Your task to perform on an android device: turn off notifications settings in the gmail app Image 0: 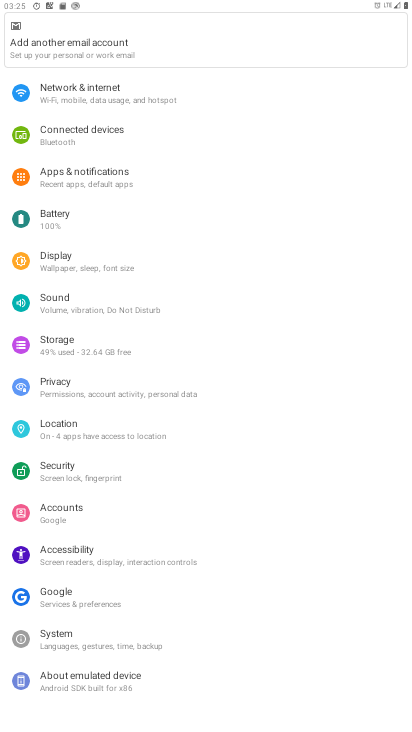
Step 0: press home button
Your task to perform on an android device: turn off notifications settings in the gmail app Image 1: 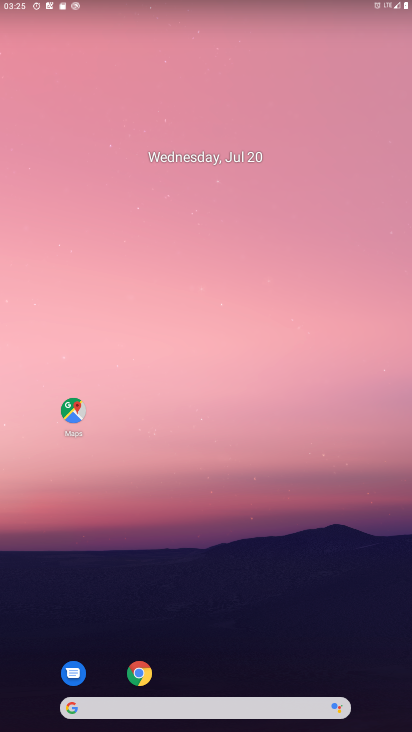
Step 1: drag from (192, 641) to (215, 20)
Your task to perform on an android device: turn off notifications settings in the gmail app Image 2: 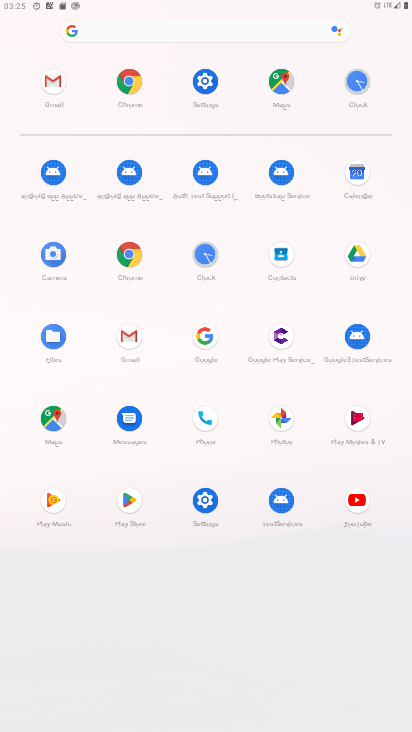
Step 2: click (133, 355)
Your task to perform on an android device: turn off notifications settings in the gmail app Image 3: 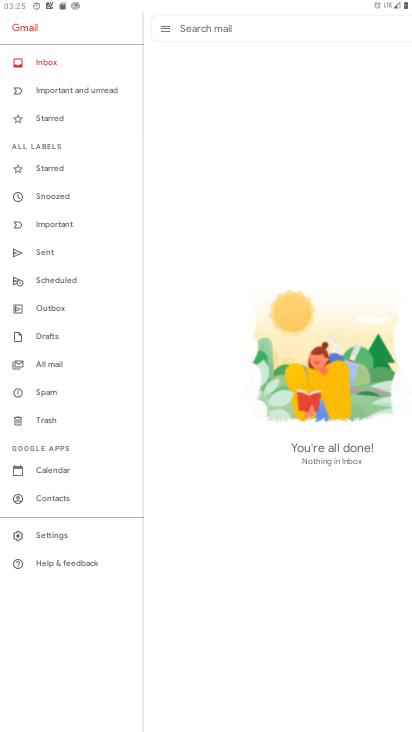
Step 3: click (54, 536)
Your task to perform on an android device: turn off notifications settings in the gmail app Image 4: 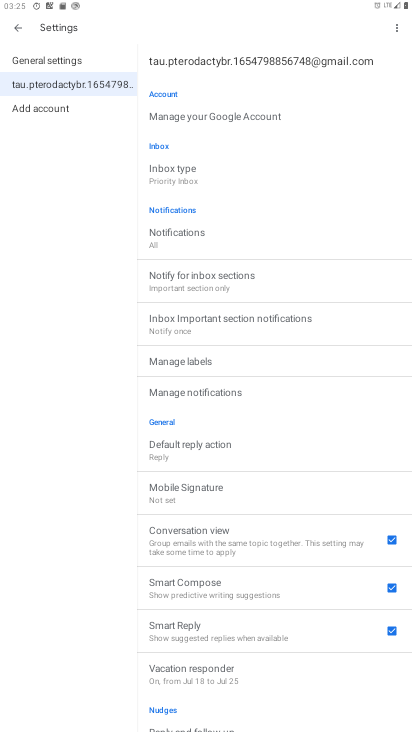
Step 4: click (57, 56)
Your task to perform on an android device: turn off notifications settings in the gmail app Image 5: 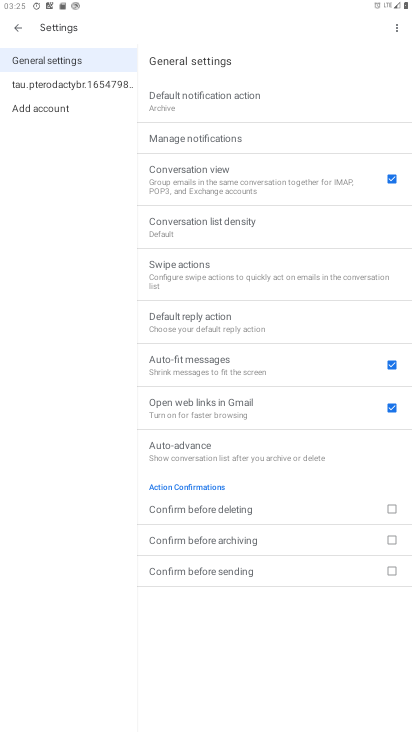
Step 5: click (222, 140)
Your task to perform on an android device: turn off notifications settings in the gmail app Image 6: 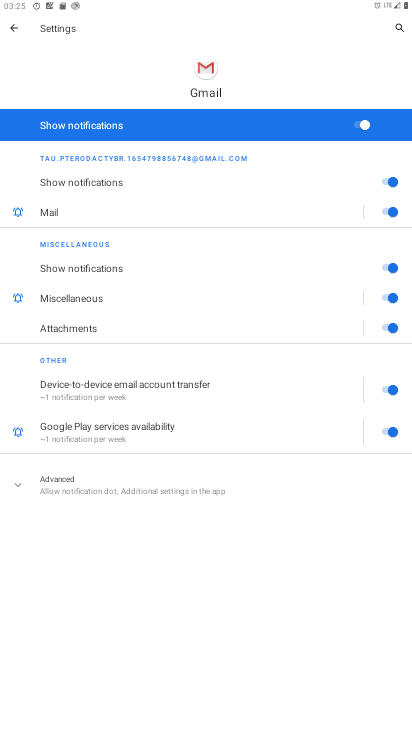
Step 6: click (334, 124)
Your task to perform on an android device: turn off notifications settings in the gmail app Image 7: 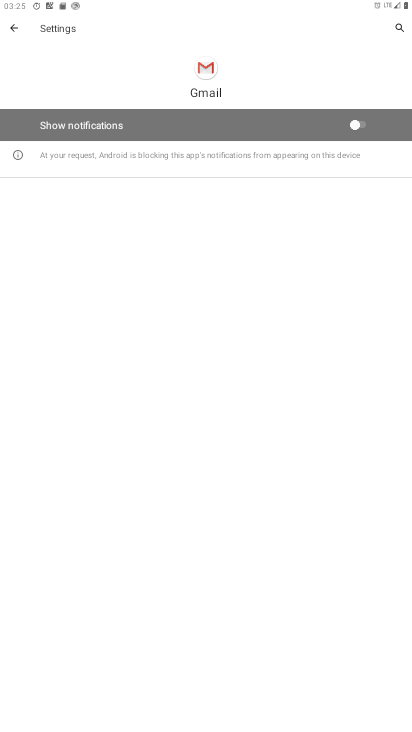
Step 7: task complete